Your task to perform on an android device: open app "Microsoft Authenticator" (install if not already installed) and go to login screen Image 0: 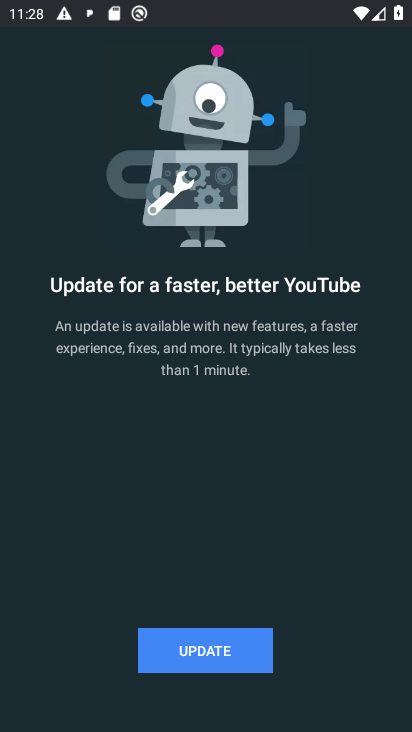
Step 0: press home button
Your task to perform on an android device: open app "Microsoft Authenticator" (install if not already installed) and go to login screen Image 1: 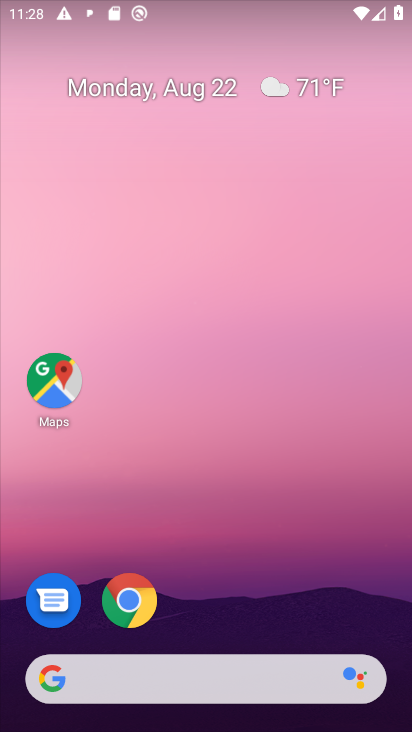
Step 1: drag from (182, 606) to (226, 157)
Your task to perform on an android device: open app "Microsoft Authenticator" (install if not already installed) and go to login screen Image 2: 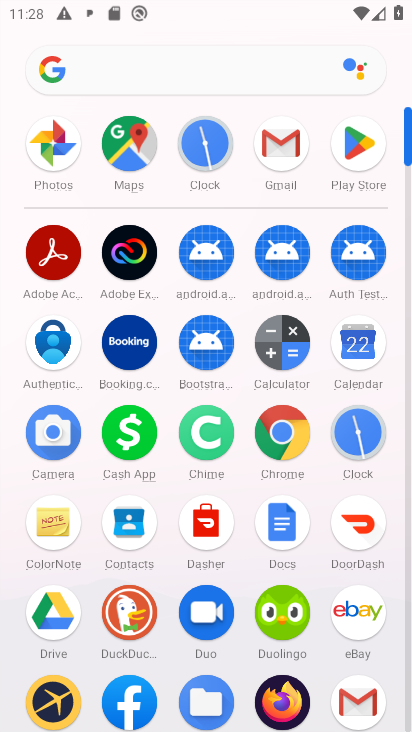
Step 2: click (339, 144)
Your task to perform on an android device: open app "Microsoft Authenticator" (install if not already installed) and go to login screen Image 3: 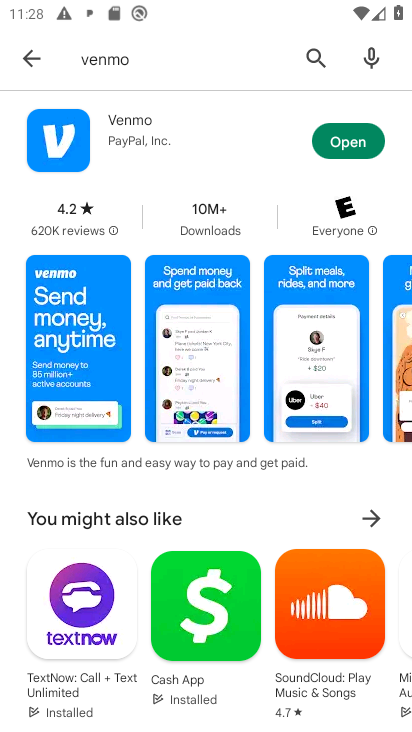
Step 3: click (302, 61)
Your task to perform on an android device: open app "Microsoft Authenticator" (install if not already installed) and go to login screen Image 4: 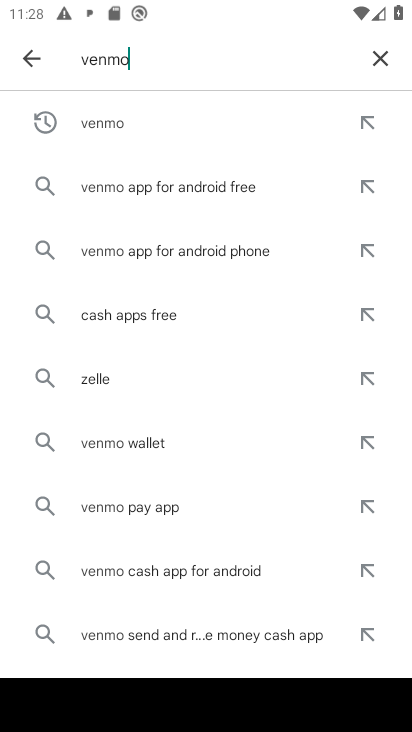
Step 4: click (370, 47)
Your task to perform on an android device: open app "Microsoft Authenticator" (install if not already installed) and go to login screen Image 5: 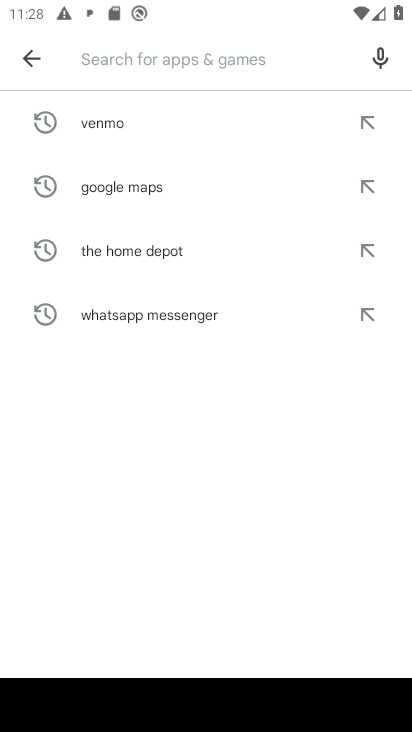
Step 5: type "Microsoft Authenticator"
Your task to perform on an android device: open app "Microsoft Authenticator" (install if not already installed) and go to login screen Image 6: 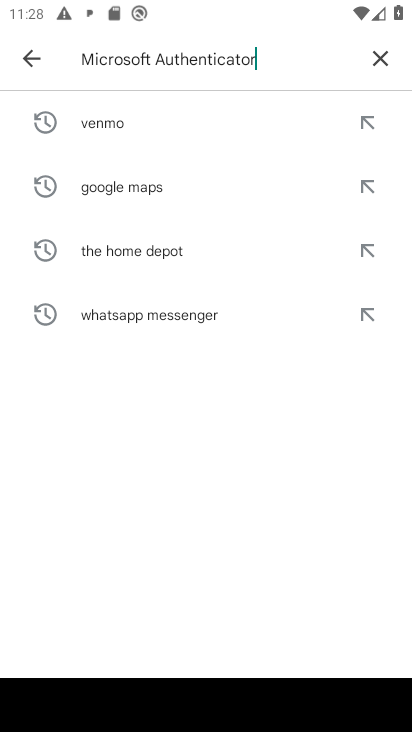
Step 6: type ""
Your task to perform on an android device: open app "Microsoft Authenticator" (install if not already installed) and go to login screen Image 7: 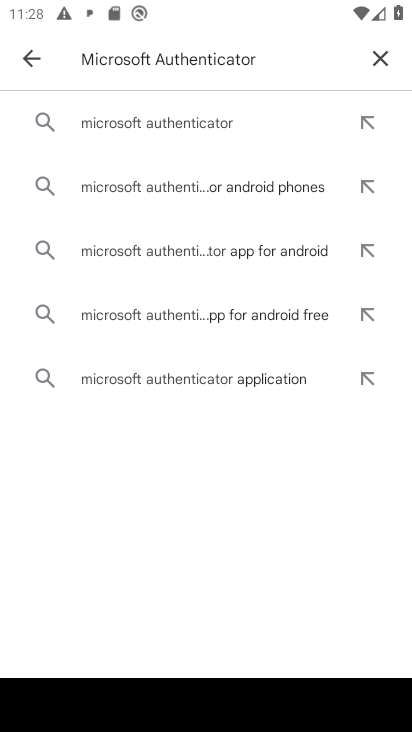
Step 7: click (143, 123)
Your task to perform on an android device: open app "Microsoft Authenticator" (install if not already installed) and go to login screen Image 8: 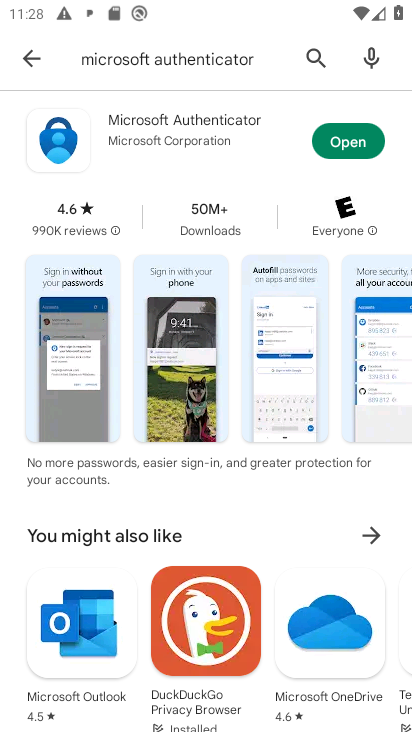
Step 8: click (362, 148)
Your task to perform on an android device: open app "Microsoft Authenticator" (install if not already installed) and go to login screen Image 9: 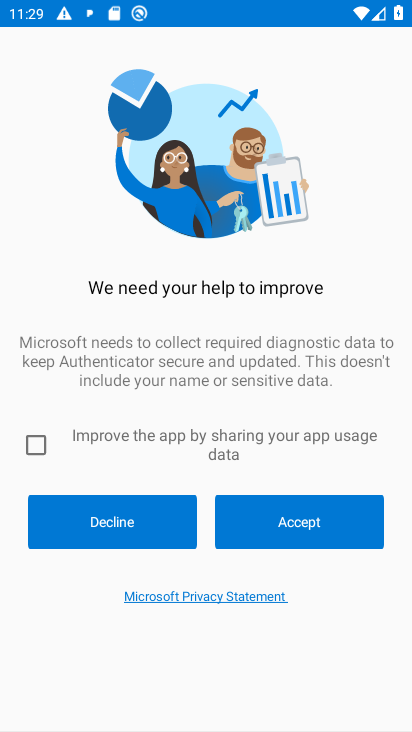
Step 9: task complete